Your task to perform on an android device: Open calendar and show me the fourth week of next month Image 0: 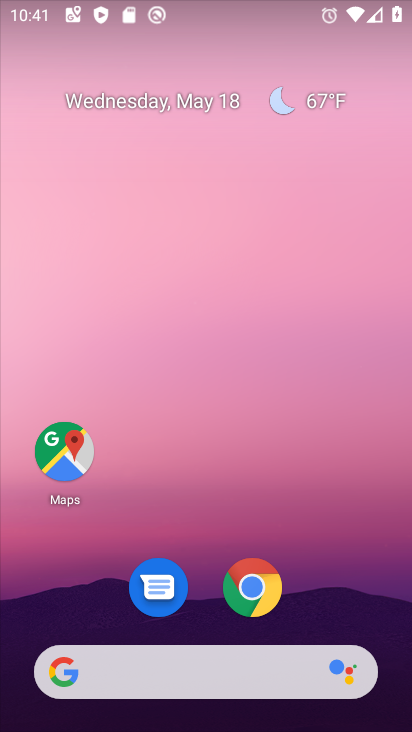
Step 0: drag from (317, 581) to (314, 47)
Your task to perform on an android device: Open calendar and show me the fourth week of next month Image 1: 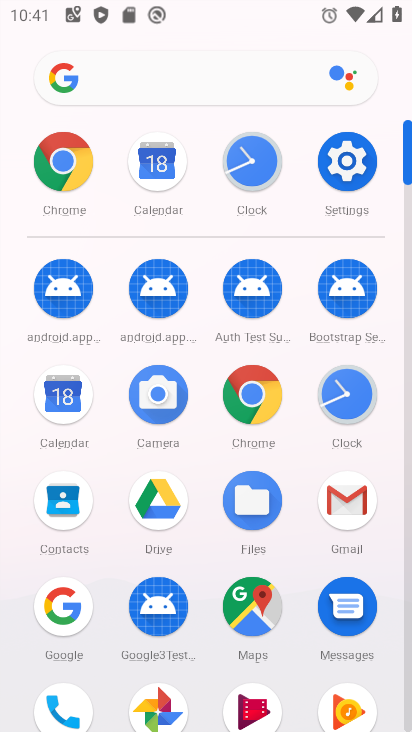
Step 1: click (160, 159)
Your task to perform on an android device: Open calendar and show me the fourth week of next month Image 2: 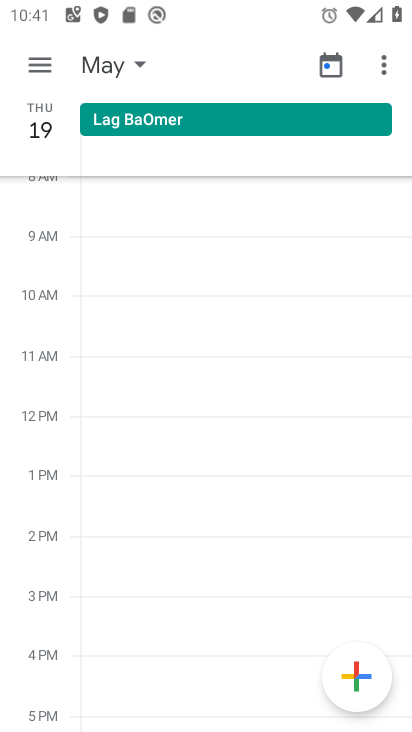
Step 2: click (43, 63)
Your task to perform on an android device: Open calendar and show me the fourth week of next month Image 3: 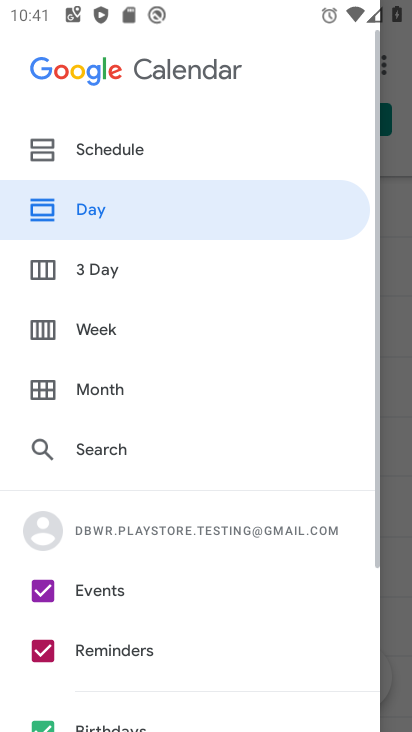
Step 3: click (127, 336)
Your task to perform on an android device: Open calendar and show me the fourth week of next month Image 4: 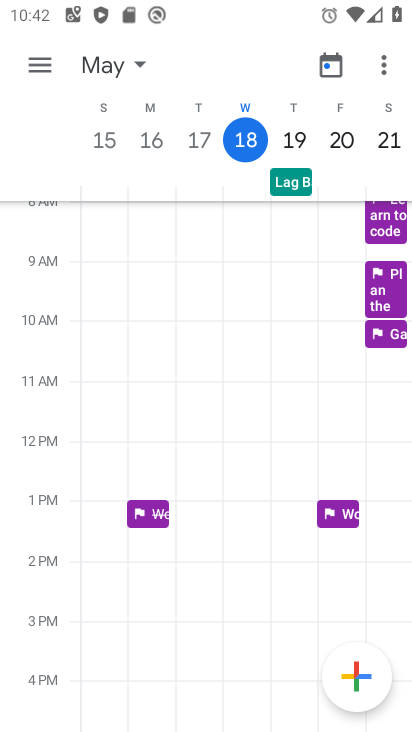
Step 4: click (137, 66)
Your task to perform on an android device: Open calendar and show me the fourth week of next month Image 5: 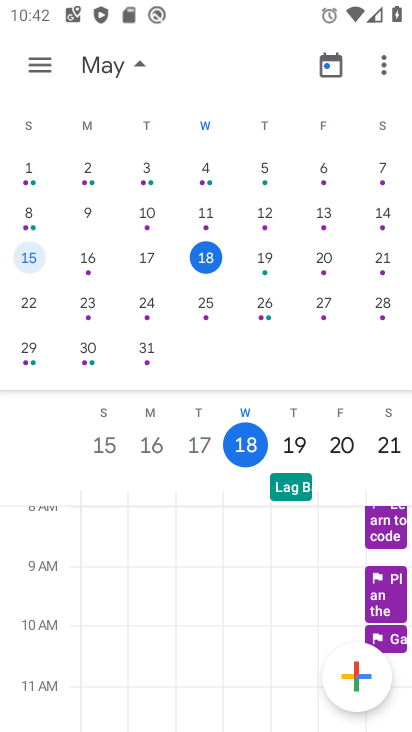
Step 5: drag from (358, 262) to (11, 275)
Your task to perform on an android device: Open calendar and show me the fourth week of next month Image 6: 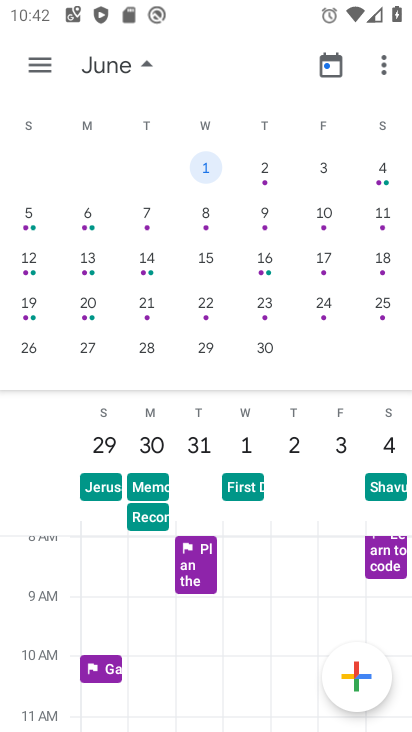
Step 6: click (205, 302)
Your task to perform on an android device: Open calendar and show me the fourth week of next month Image 7: 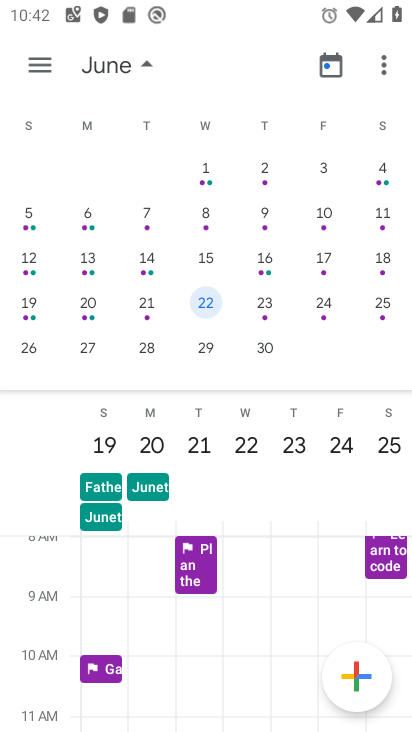
Step 7: task complete